Your task to perform on an android device: change timer sound Image 0: 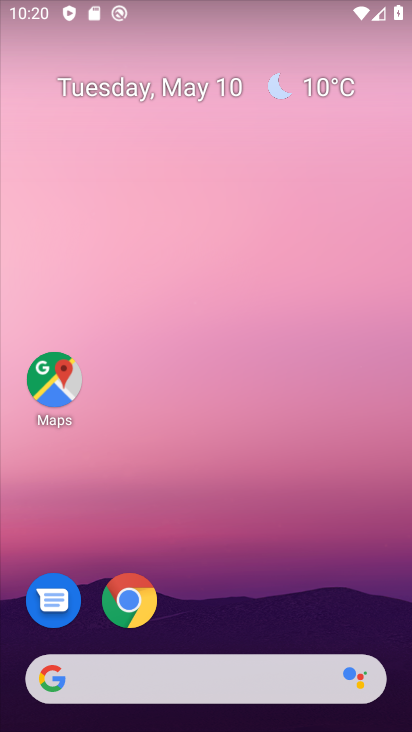
Step 0: drag from (278, 550) to (409, 95)
Your task to perform on an android device: change timer sound Image 1: 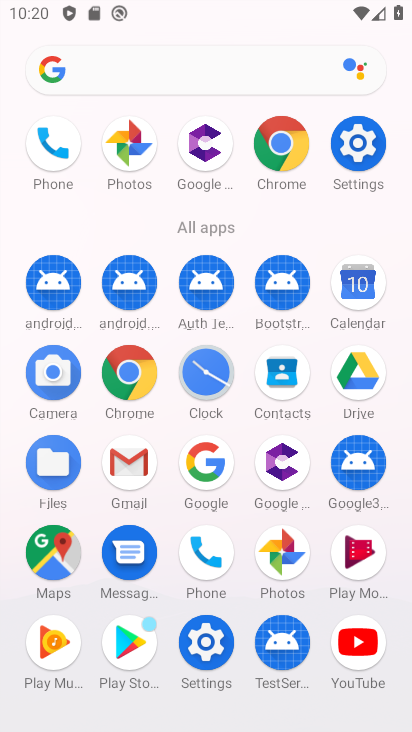
Step 1: click (211, 375)
Your task to perform on an android device: change timer sound Image 2: 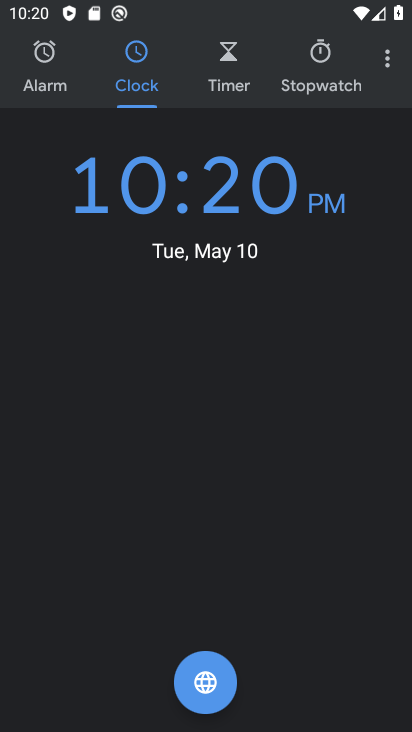
Step 2: click (381, 65)
Your task to perform on an android device: change timer sound Image 3: 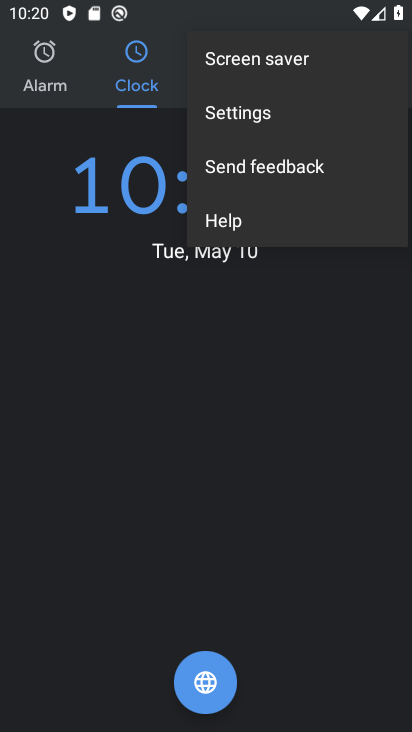
Step 3: click (257, 111)
Your task to perform on an android device: change timer sound Image 4: 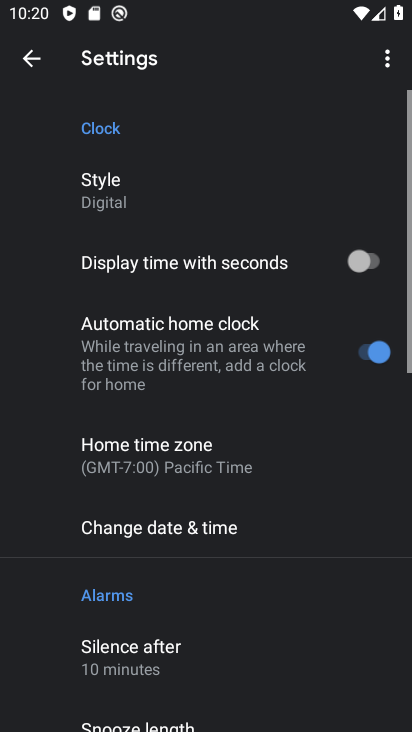
Step 4: drag from (293, 614) to (226, 201)
Your task to perform on an android device: change timer sound Image 5: 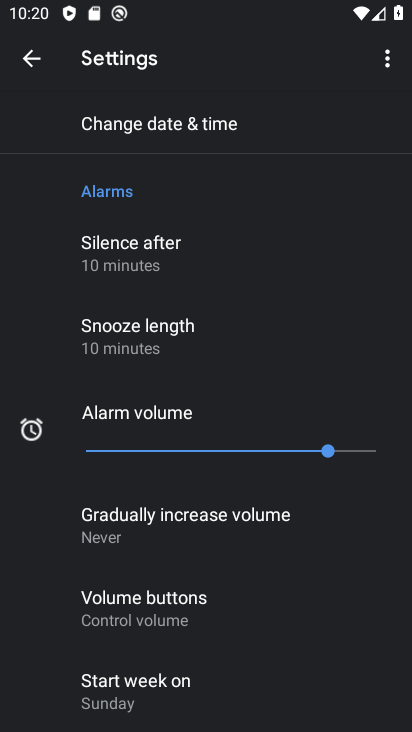
Step 5: drag from (276, 619) to (267, 337)
Your task to perform on an android device: change timer sound Image 6: 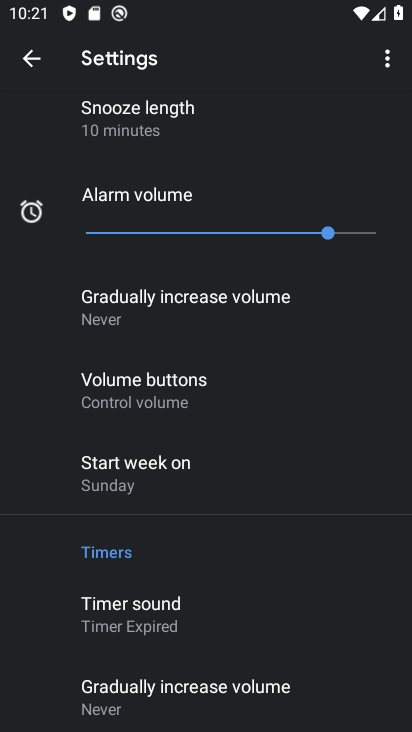
Step 6: click (197, 607)
Your task to perform on an android device: change timer sound Image 7: 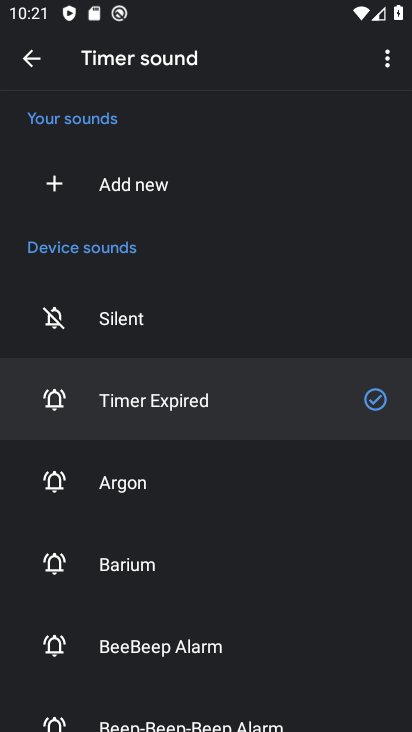
Step 7: click (201, 462)
Your task to perform on an android device: change timer sound Image 8: 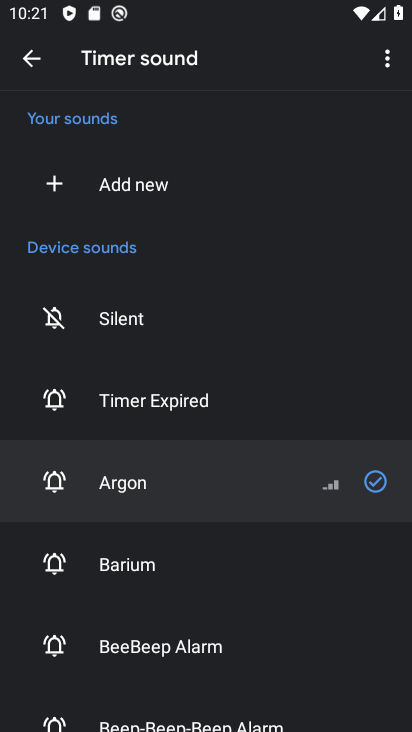
Step 8: task complete